Your task to perform on an android device: Open CNN.com Image 0: 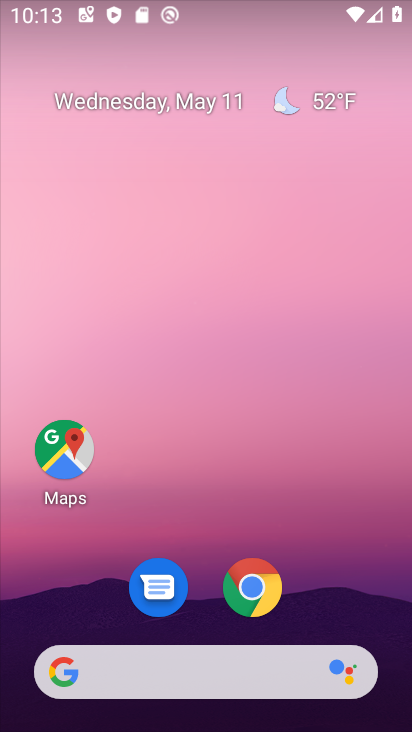
Step 0: drag from (311, 708) to (198, 211)
Your task to perform on an android device: Open CNN.com Image 1: 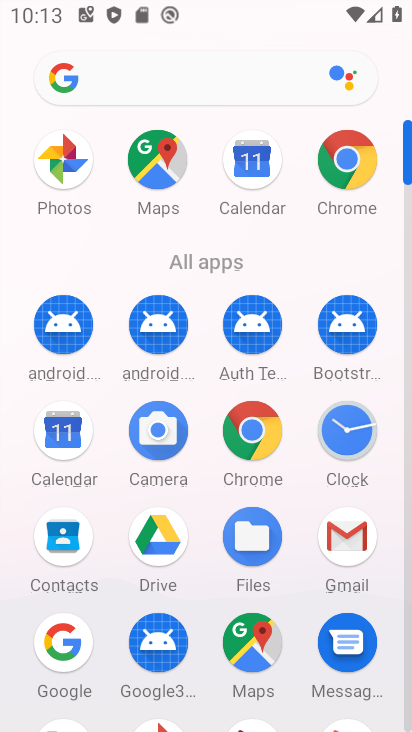
Step 1: click (345, 155)
Your task to perform on an android device: Open CNN.com Image 2: 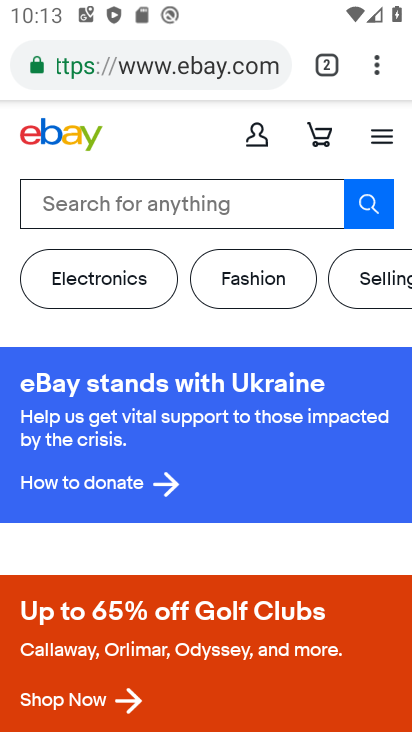
Step 2: click (149, 74)
Your task to perform on an android device: Open CNN.com Image 3: 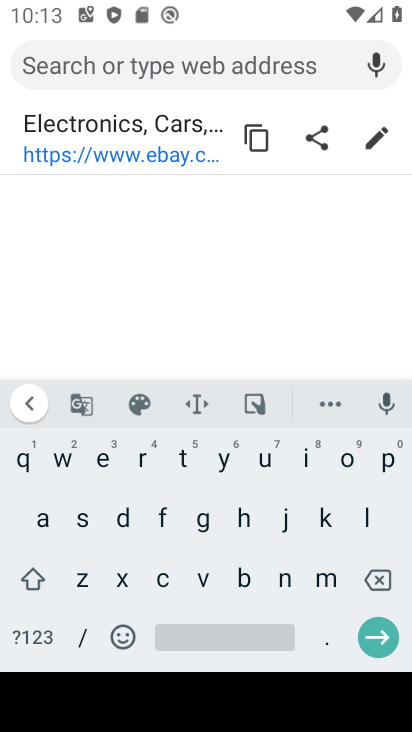
Step 3: click (162, 581)
Your task to perform on an android device: Open CNN.com Image 4: 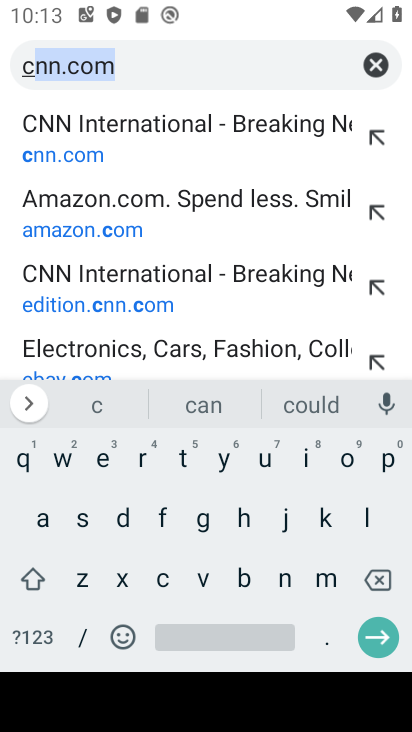
Step 4: click (293, 575)
Your task to perform on an android device: Open CNN.com Image 5: 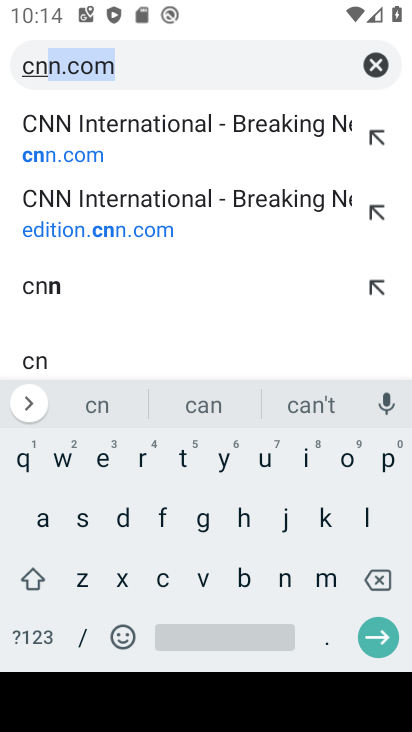
Step 5: click (142, 67)
Your task to perform on an android device: Open CNN.com Image 6: 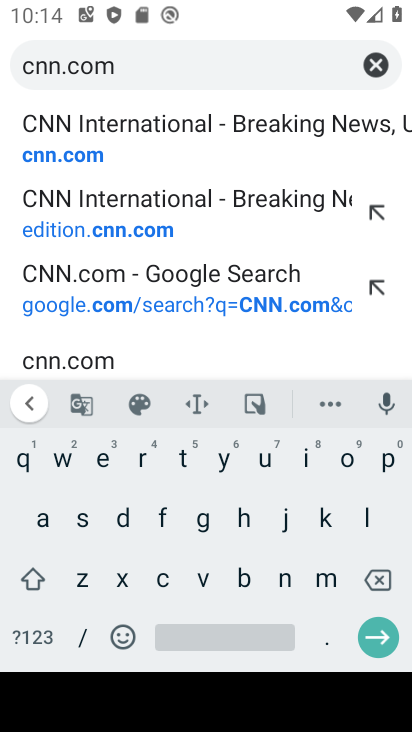
Step 6: click (385, 636)
Your task to perform on an android device: Open CNN.com Image 7: 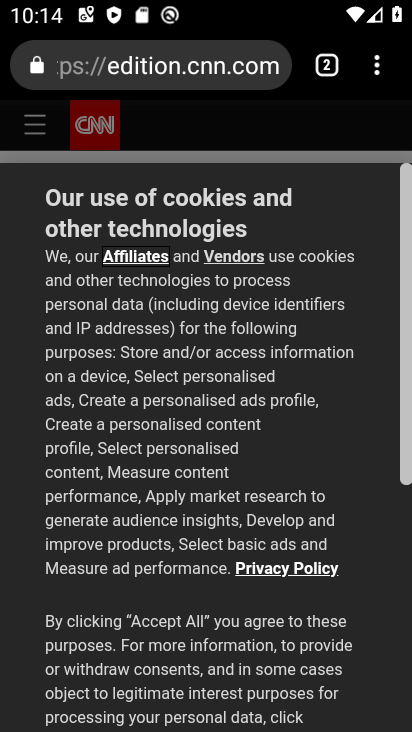
Step 7: task complete